Your task to perform on an android device: Open Yahoo.com Image 0: 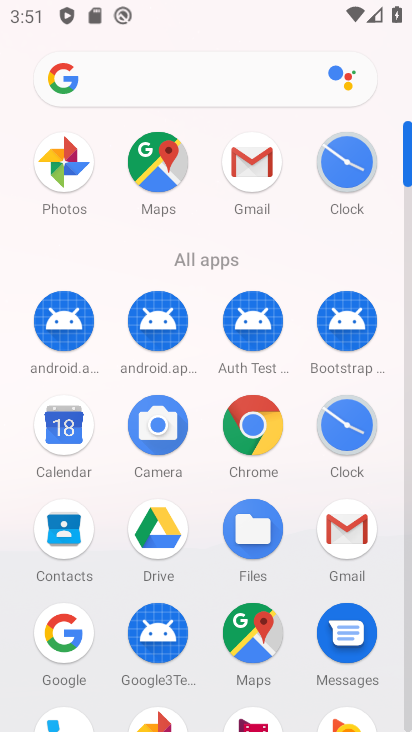
Step 0: press home button
Your task to perform on an android device: Open Yahoo.com Image 1: 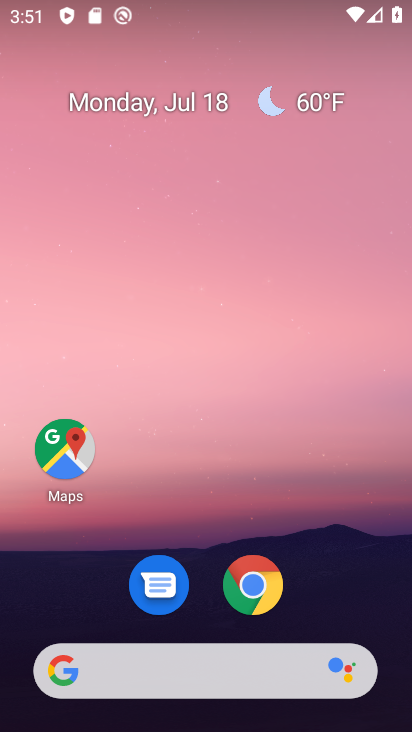
Step 1: click (242, 690)
Your task to perform on an android device: Open Yahoo.com Image 2: 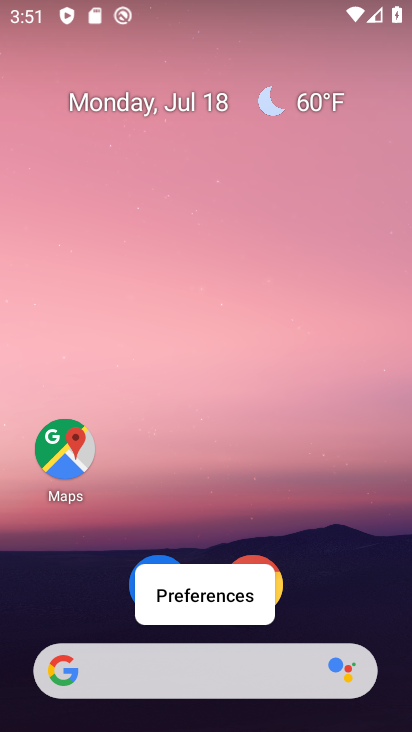
Step 2: click (203, 680)
Your task to perform on an android device: Open Yahoo.com Image 3: 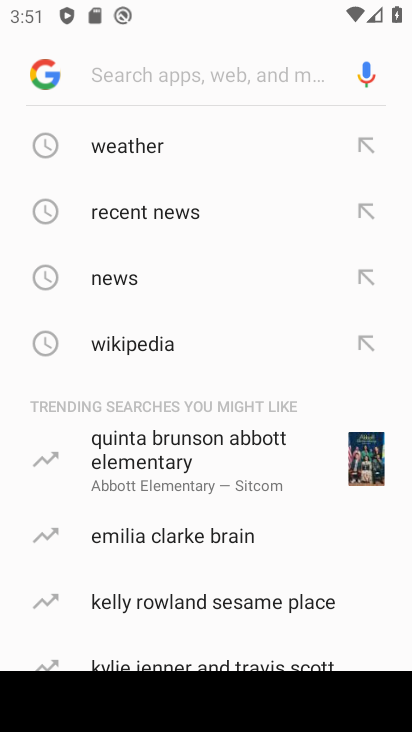
Step 3: type "yahoo.com"
Your task to perform on an android device: Open Yahoo.com Image 4: 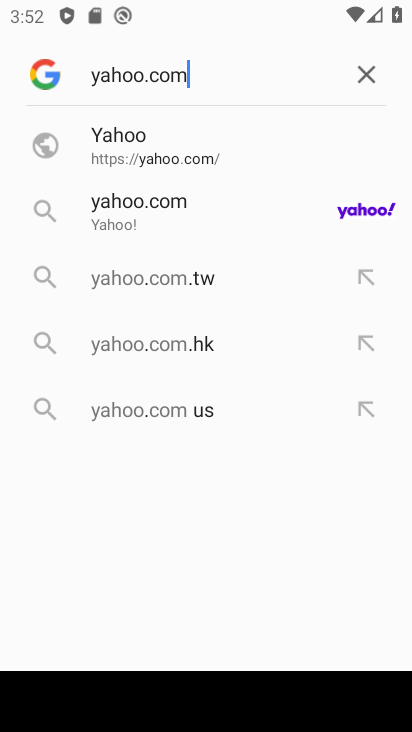
Step 4: click (366, 209)
Your task to perform on an android device: Open Yahoo.com Image 5: 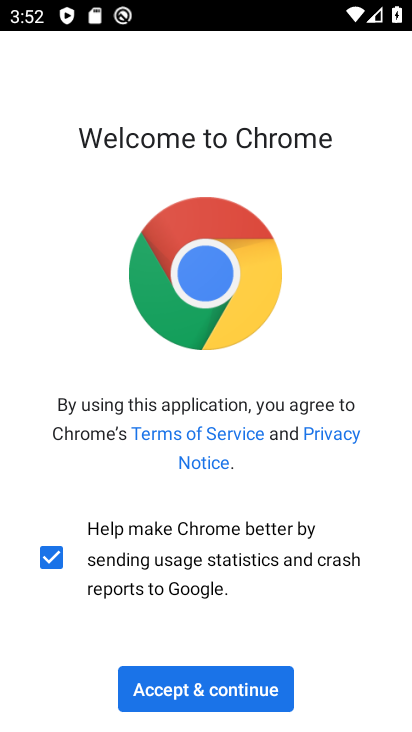
Step 5: click (236, 690)
Your task to perform on an android device: Open Yahoo.com Image 6: 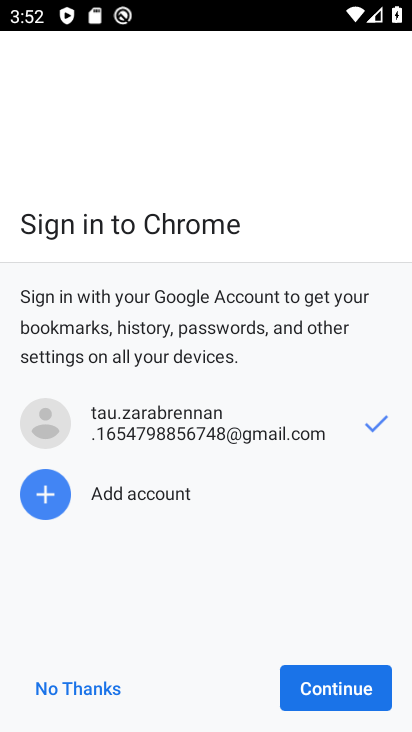
Step 6: click (346, 690)
Your task to perform on an android device: Open Yahoo.com Image 7: 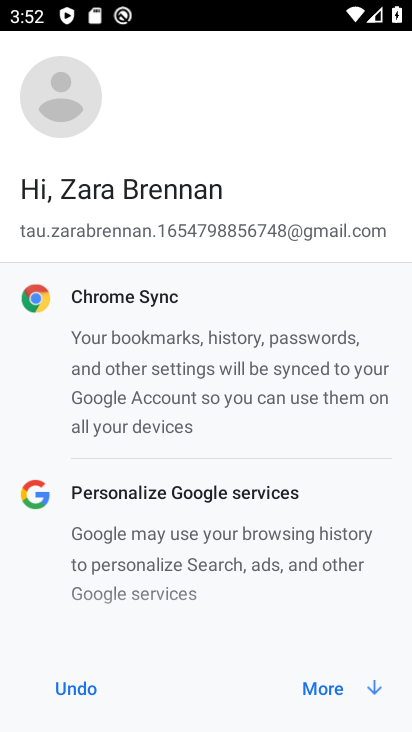
Step 7: click (335, 687)
Your task to perform on an android device: Open Yahoo.com Image 8: 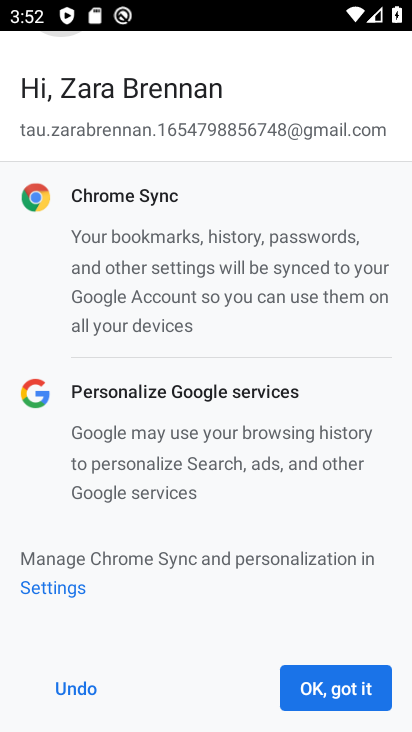
Step 8: click (335, 687)
Your task to perform on an android device: Open Yahoo.com Image 9: 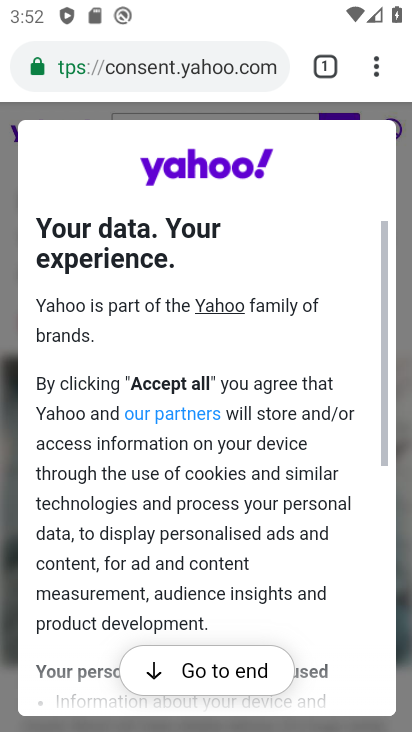
Step 9: drag from (263, 619) to (332, 300)
Your task to perform on an android device: Open Yahoo.com Image 10: 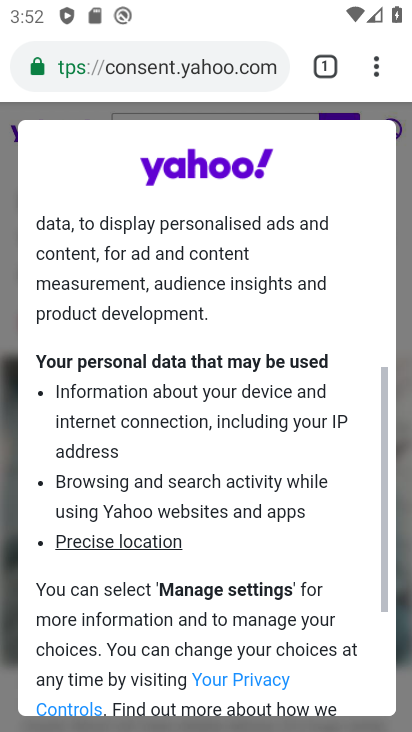
Step 10: drag from (194, 580) to (235, 154)
Your task to perform on an android device: Open Yahoo.com Image 11: 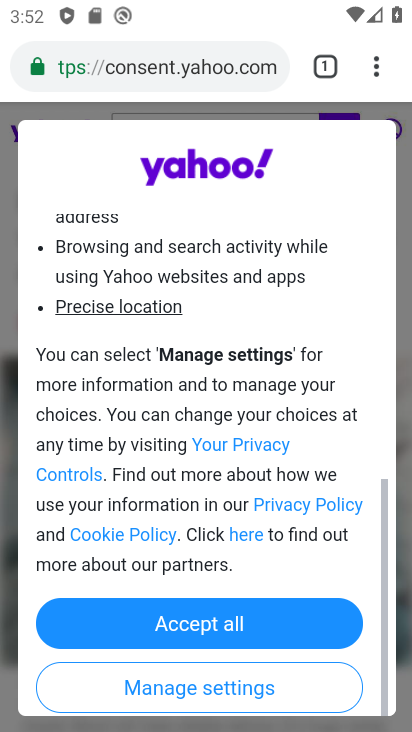
Step 11: click (236, 619)
Your task to perform on an android device: Open Yahoo.com Image 12: 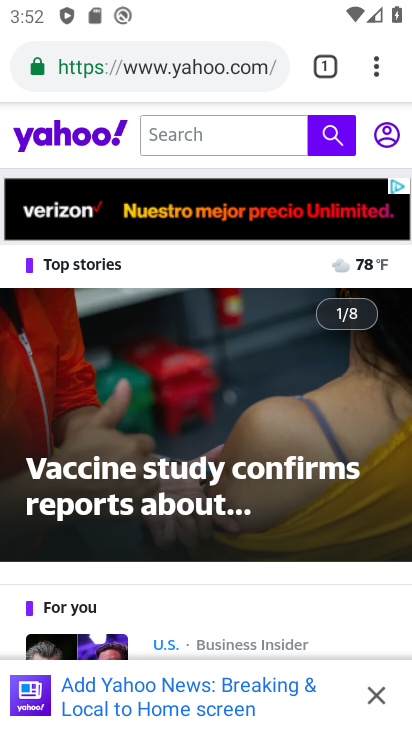
Step 12: task complete